Your task to perform on an android device: change the clock display to show seconds Image 0: 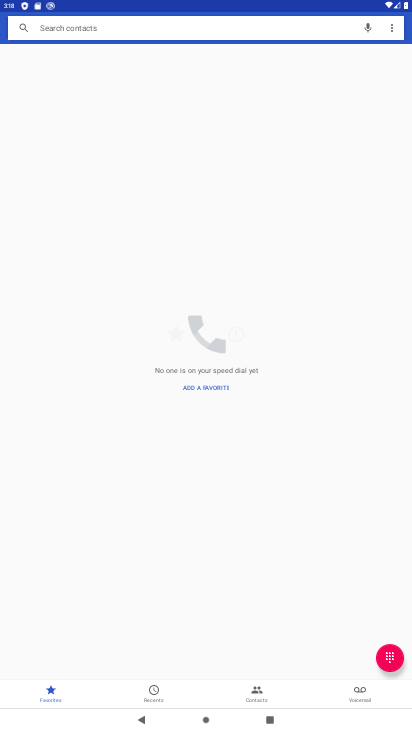
Step 0: press home button
Your task to perform on an android device: change the clock display to show seconds Image 1: 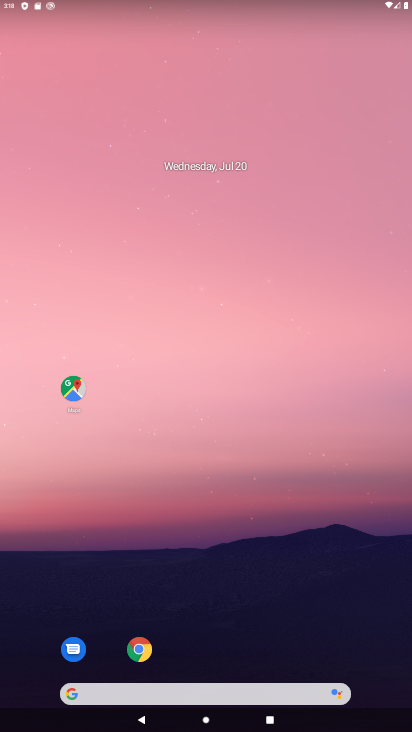
Step 1: drag from (261, 624) to (261, 174)
Your task to perform on an android device: change the clock display to show seconds Image 2: 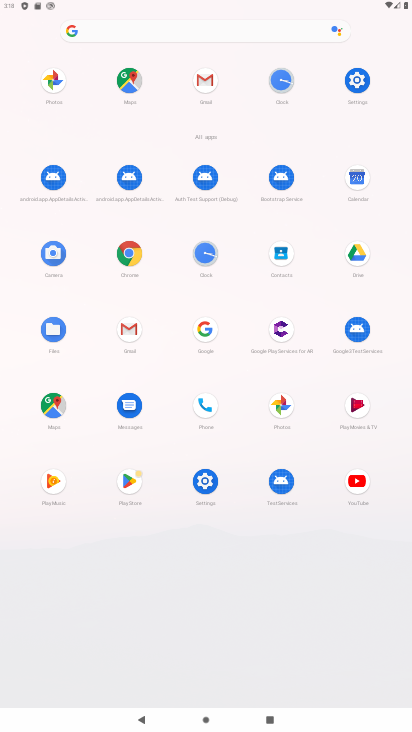
Step 2: click (280, 108)
Your task to perform on an android device: change the clock display to show seconds Image 3: 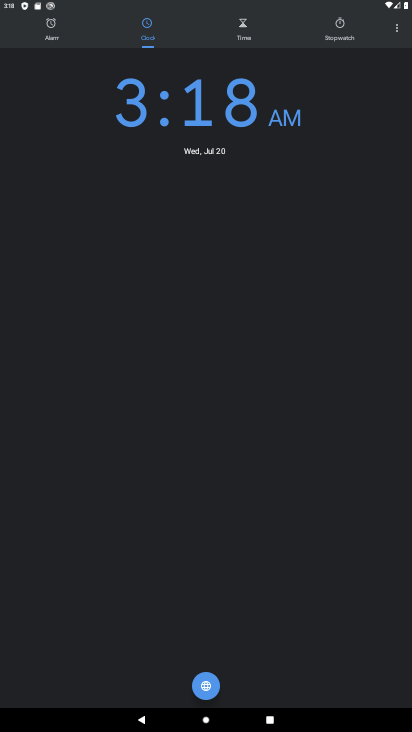
Step 3: click (388, 33)
Your task to perform on an android device: change the clock display to show seconds Image 4: 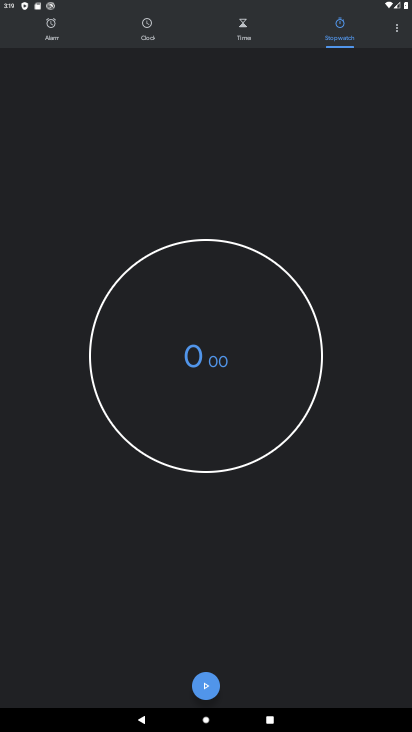
Step 4: click (391, 37)
Your task to perform on an android device: change the clock display to show seconds Image 5: 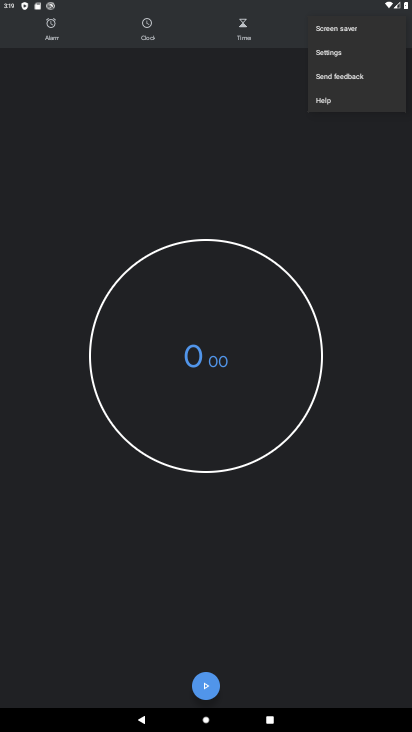
Step 5: click (359, 57)
Your task to perform on an android device: change the clock display to show seconds Image 6: 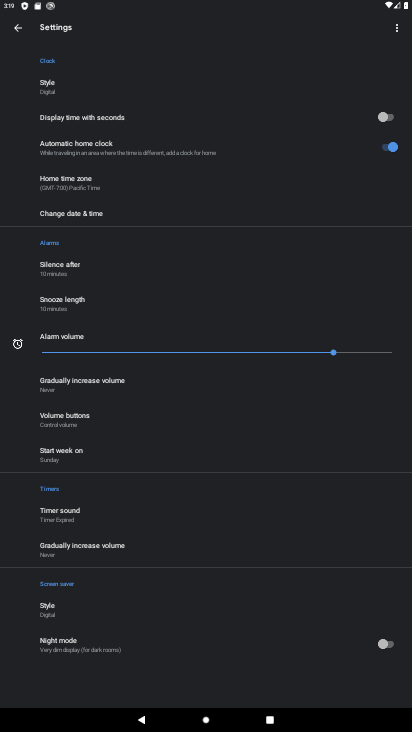
Step 6: click (390, 126)
Your task to perform on an android device: change the clock display to show seconds Image 7: 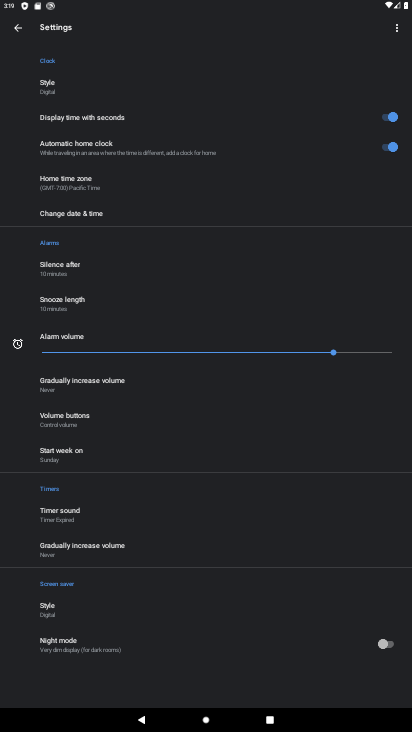
Step 7: task complete